Your task to perform on an android device: Check the news Image 0: 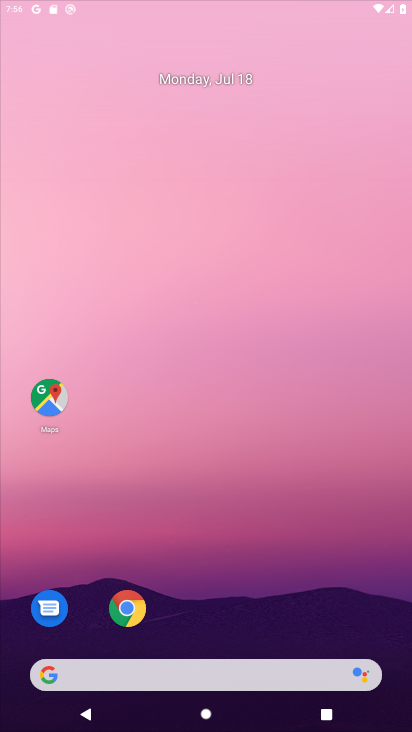
Step 0: click (176, 107)
Your task to perform on an android device: Check the news Image 1: 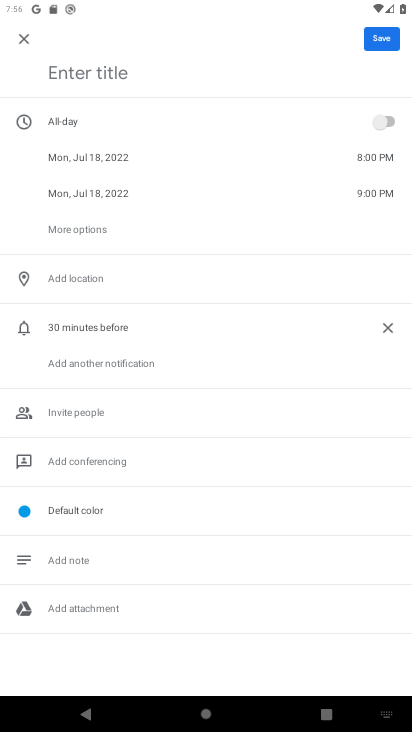
Step 1: press home button
Your task to perform on an android device: Check the news Image 2: 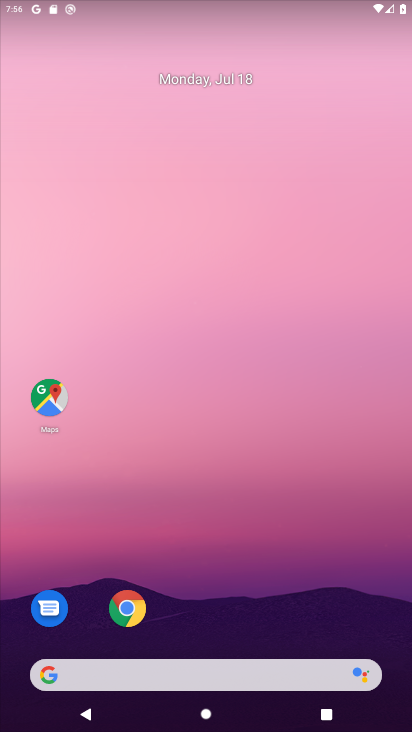
Step 2: drag from (189, 635) to (139, 0)
Your task to perform on an android device: Check the news Image 3: 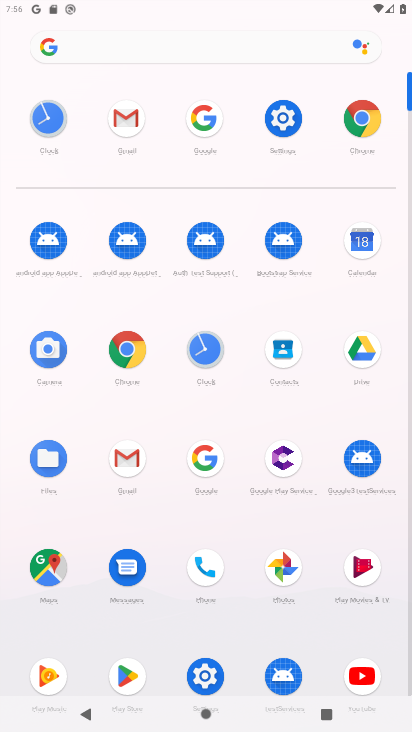
Step 3: click (215, 462)
Your task to perform on an android device: Check the news Image 4: 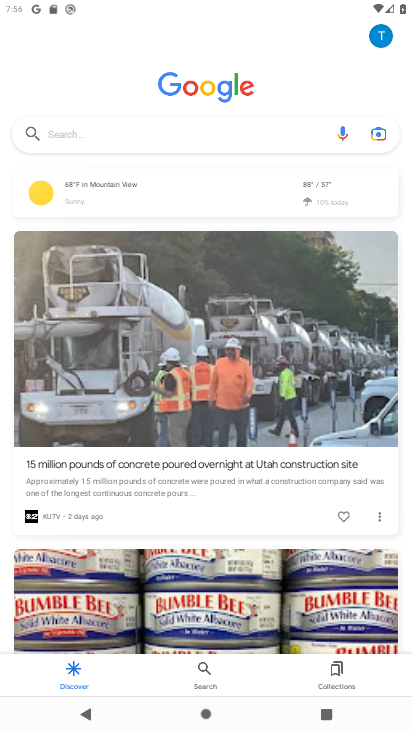
Step 4: click (113, 136)
Your task to perform on an android device: Check the news Image 5: 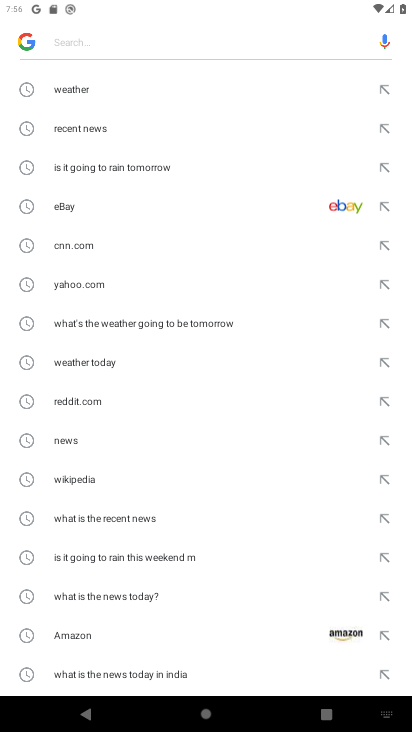
Step 5: click (53, 430)
Your task to perform on an android device: Check the news Image 6: 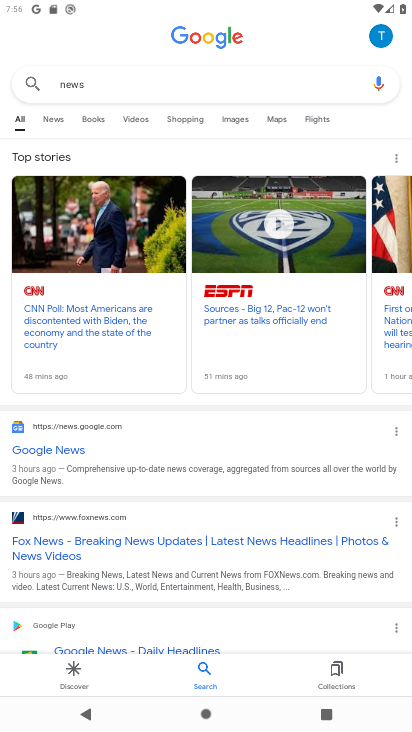
Step 6: click (60, 122)
Your task to perform on an android device: Check the news Image 7: 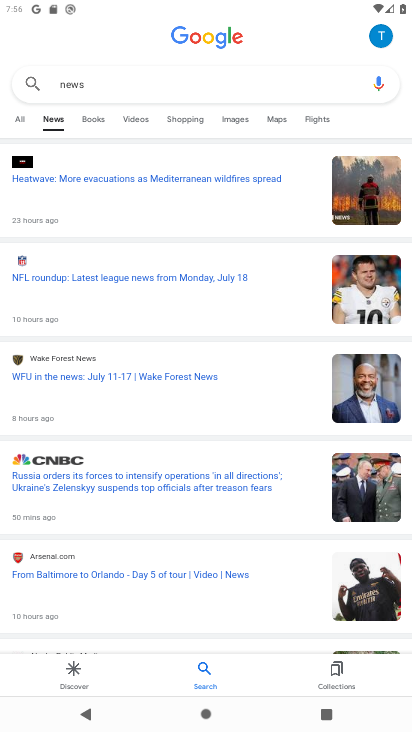
Step 7: task complete